Your task to perform on an android device: empty trash in the gmail app Image 0: 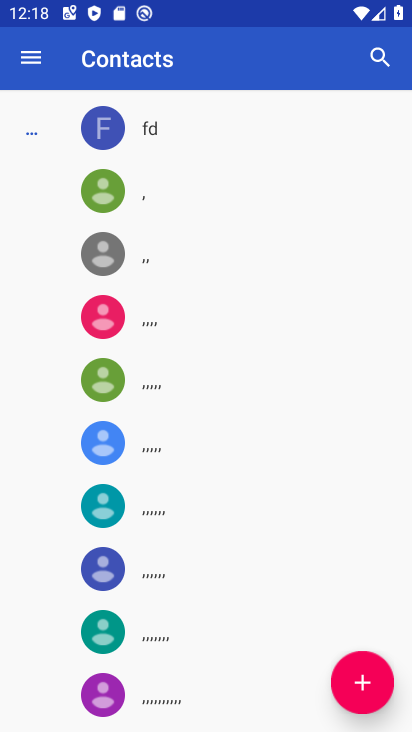
Step 0: press back button
Your task to perform on an android device: empty trash in the gmail app Image 1: 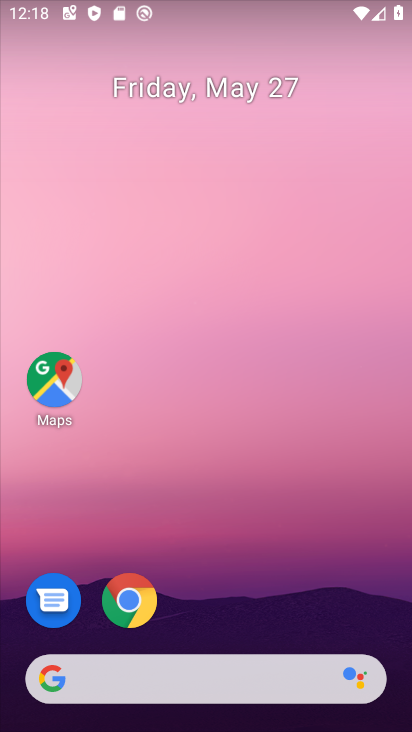
Step 1: drag from (305, 558) to (233, 14)
Your task to perform on an android device: empty trash in the gmail app Image 2: 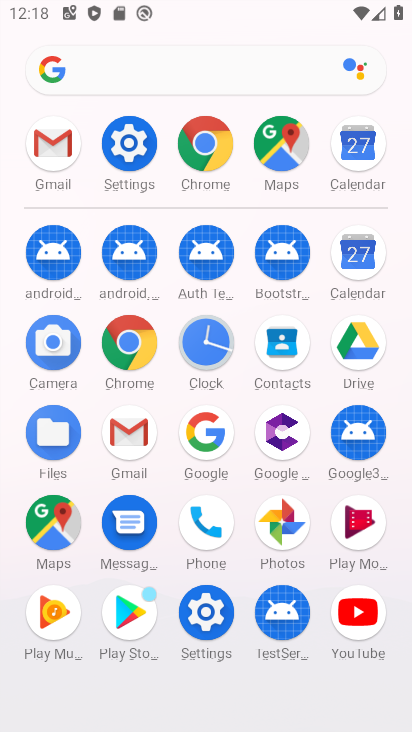
Step 2: click (54, 131)
Your task to perform on an android device: empty trash in the gmail app Image 3: 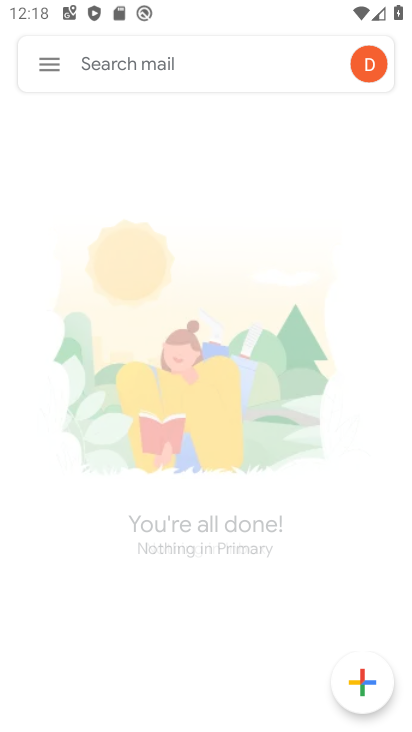
Step 3: click (51, 70)
Your task to perform on an android device: empty trash in the gmail app Image 4: 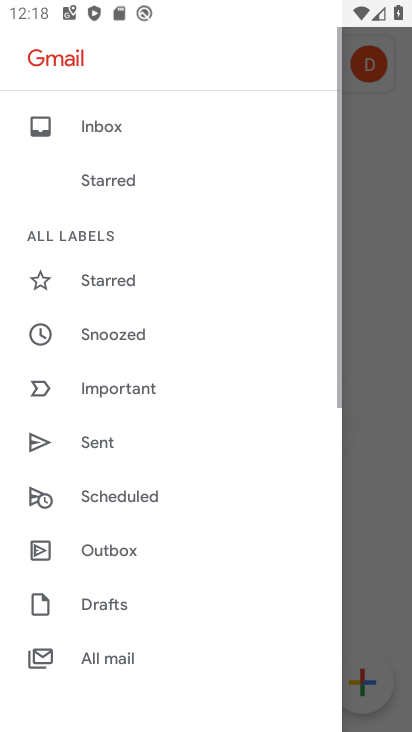
Step 4: drag from (193, 644) to (196, 173)
Your task to perform on an android device: empty trash in the gmail app Image 5: 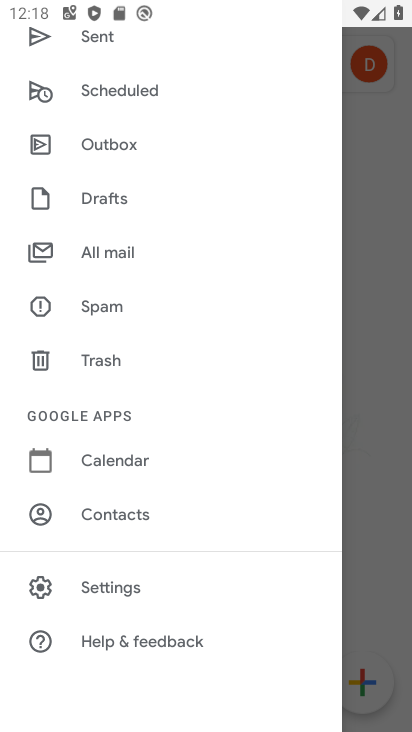
Step 5: click (119, 353)
Your task to perform on an android device: empty trash in the gmail app Image 6: 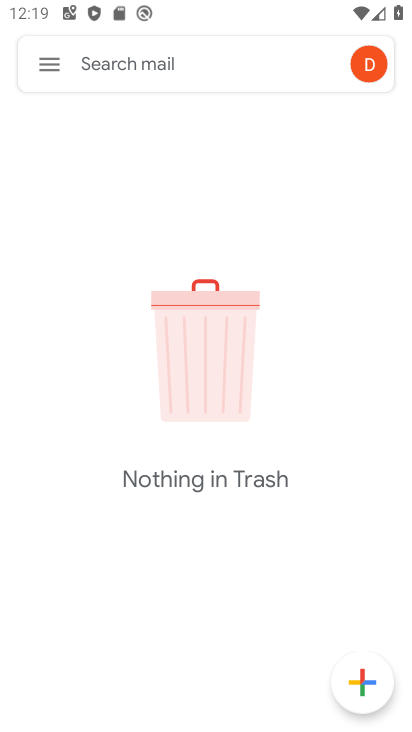
Step 6: task complete